Your task to perform on an android device: Open my contact list Image 0: 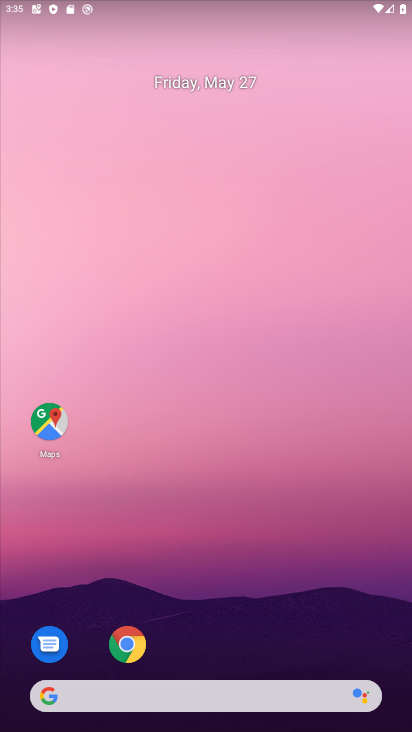
Step 0: drag from (292, 536) to (241, 0)
Your task to perform on an android device: Open my contact list Image 1: 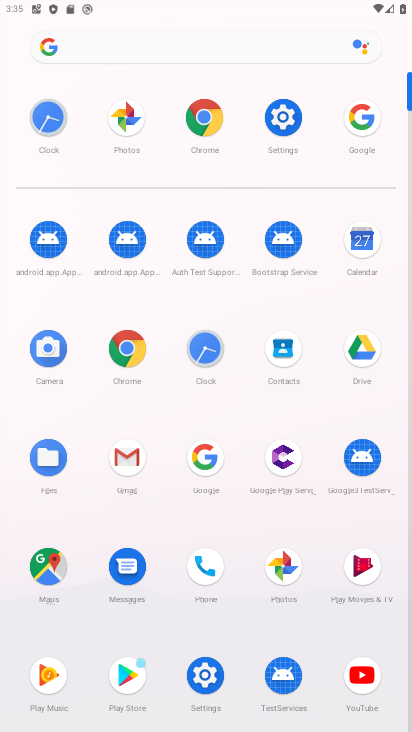
Step 1: click (285, 338)
Your task to perform on an android device: Open my contact list Image 2: 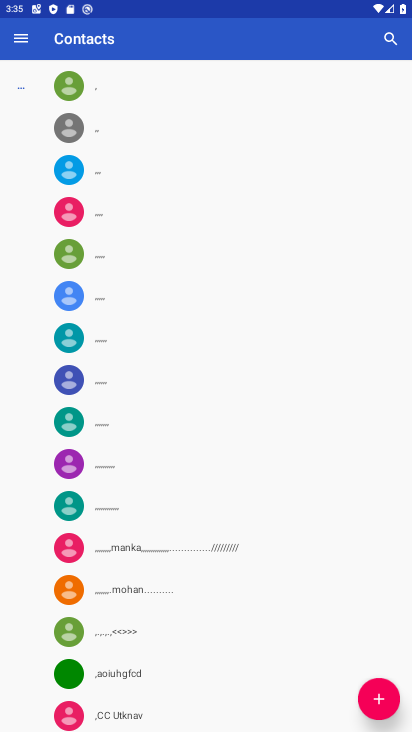
Step 2: task complete